Your task to perform on an android device: Go to Yahoo.com Image 0: 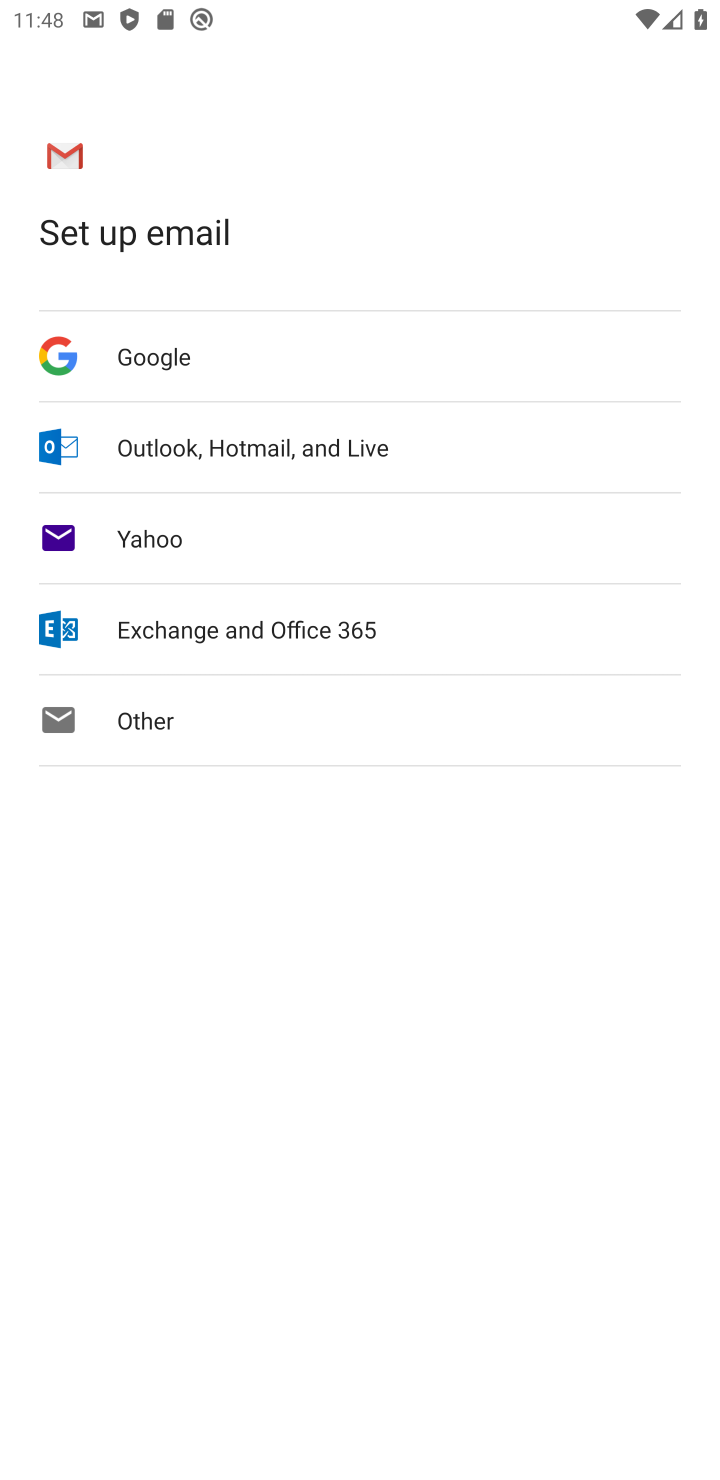
Step 0: press home button
Your task to perform on an android device: Go to Yahoo.com Image 1: 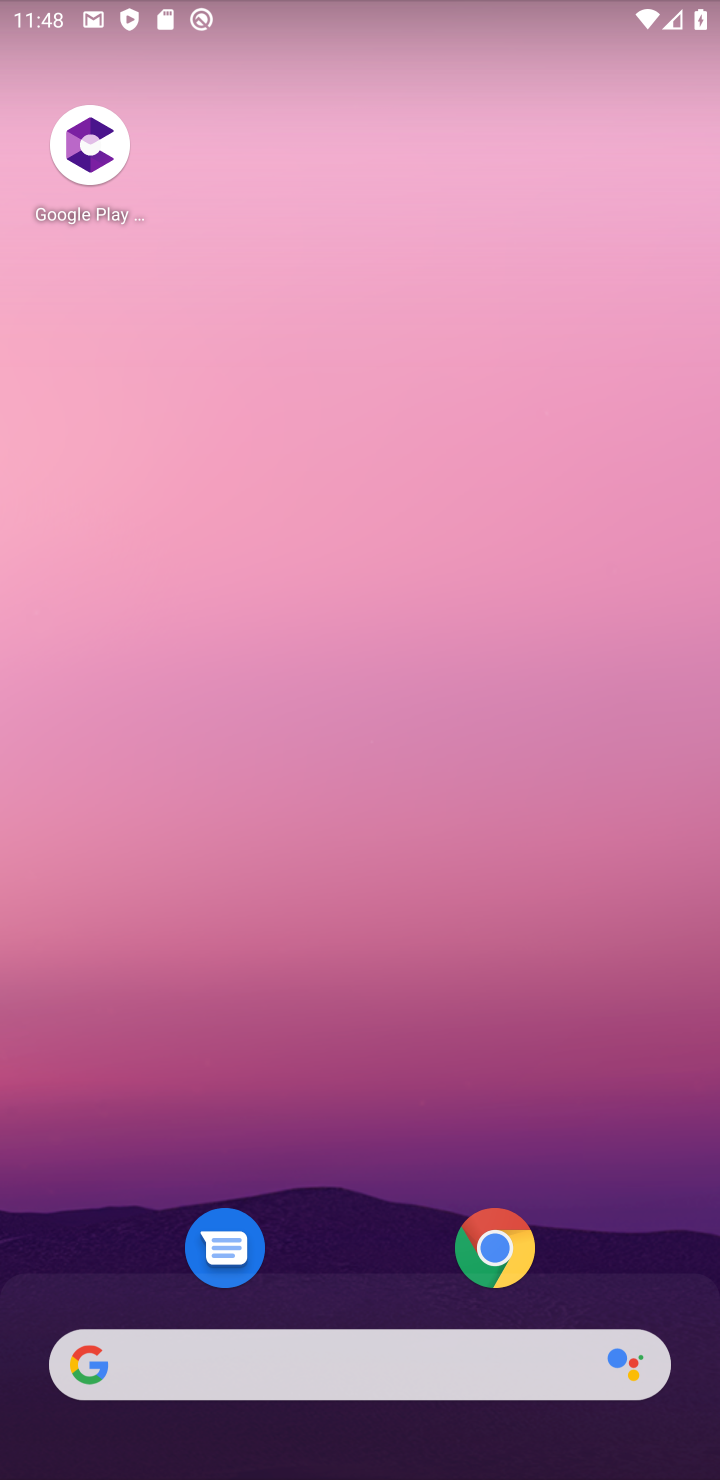
Step 1: press home button
Your task to perform on an android device: Go to Yahoo.com Image 2: 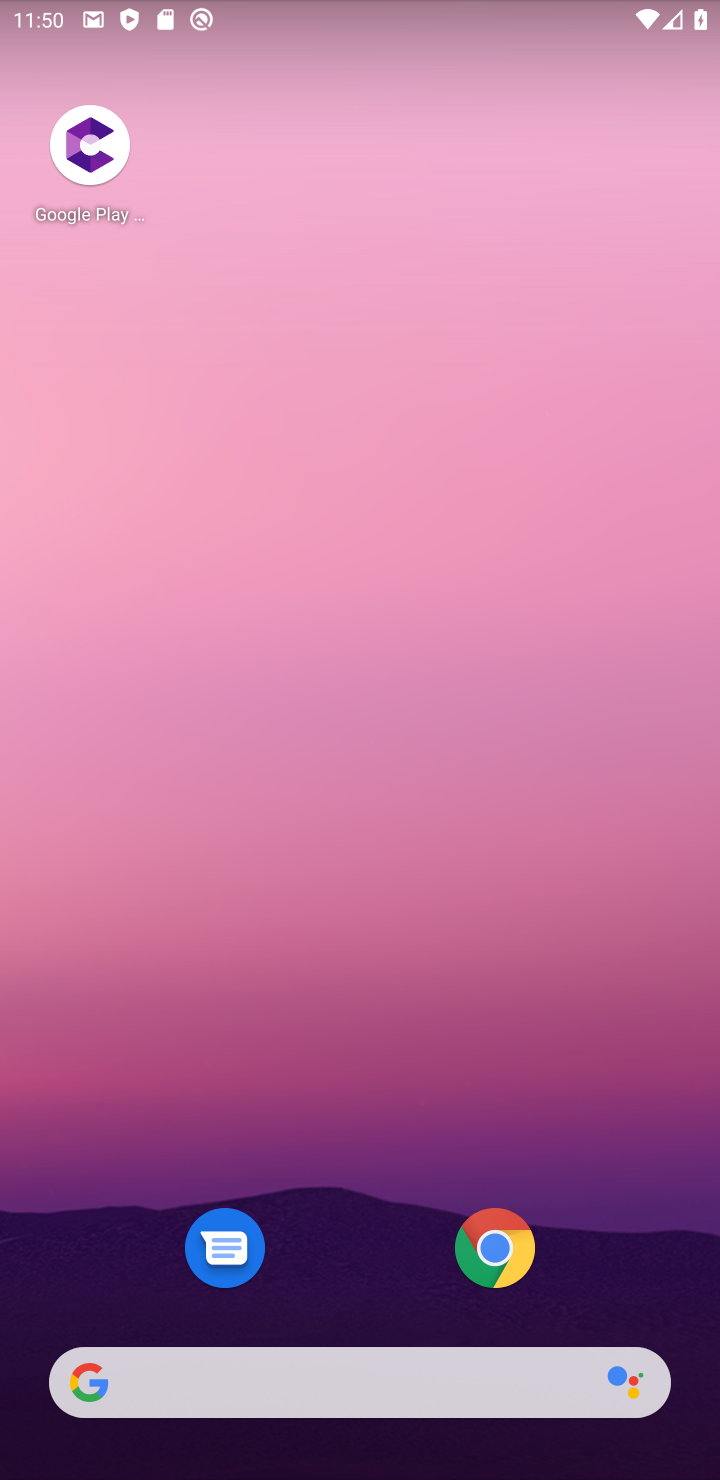
Step 2: click (529, 1262)
Your task to perform on an android device: Go to Yahoo.com Image 3: 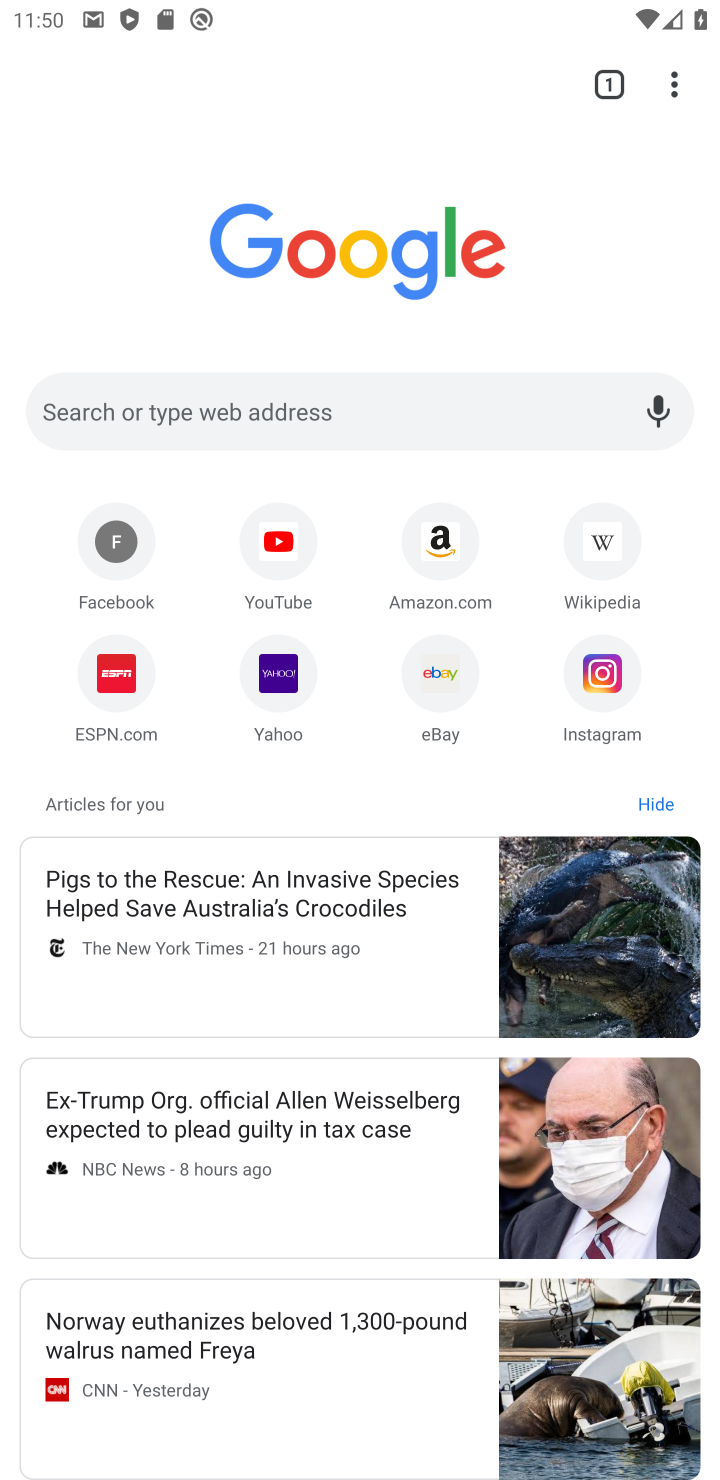
Step 3: click (525, 400)
Your task to perform on an android device: Go to Yahoo.com Image 4: 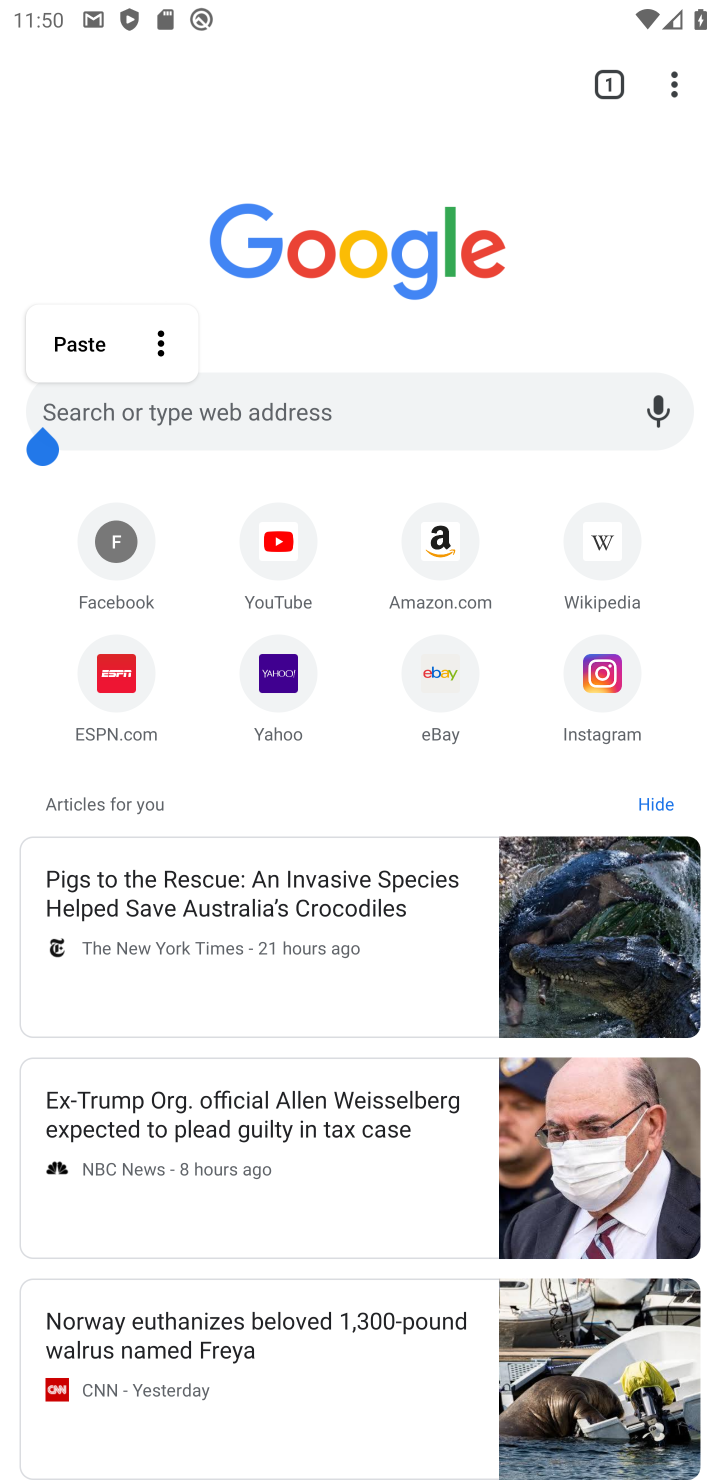
Step 4: type "yahoo.com"
Your task to perform on an android device: Go to Yahoo.com Image 5: 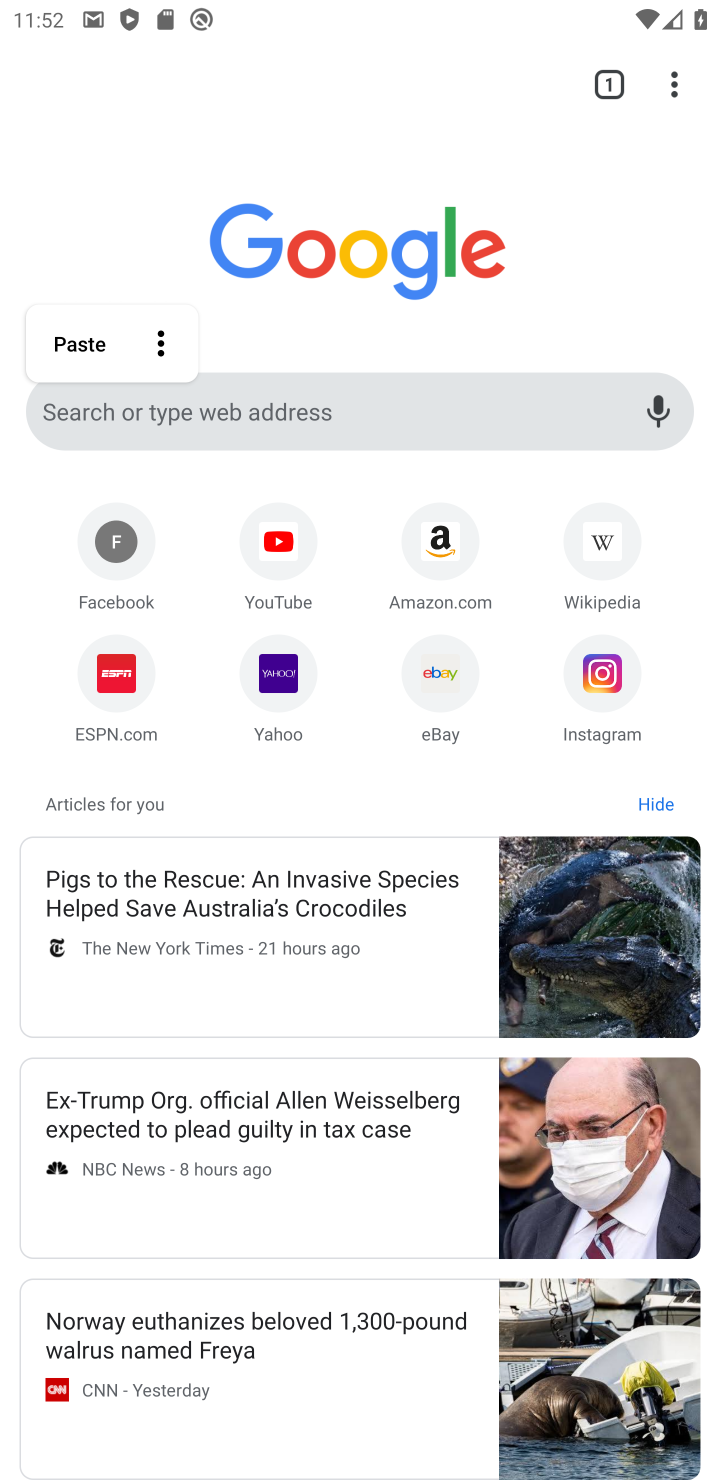
Step 5: click (477, 426)
Your task to perform on an android device: Go to Yahoo.com Image 6: 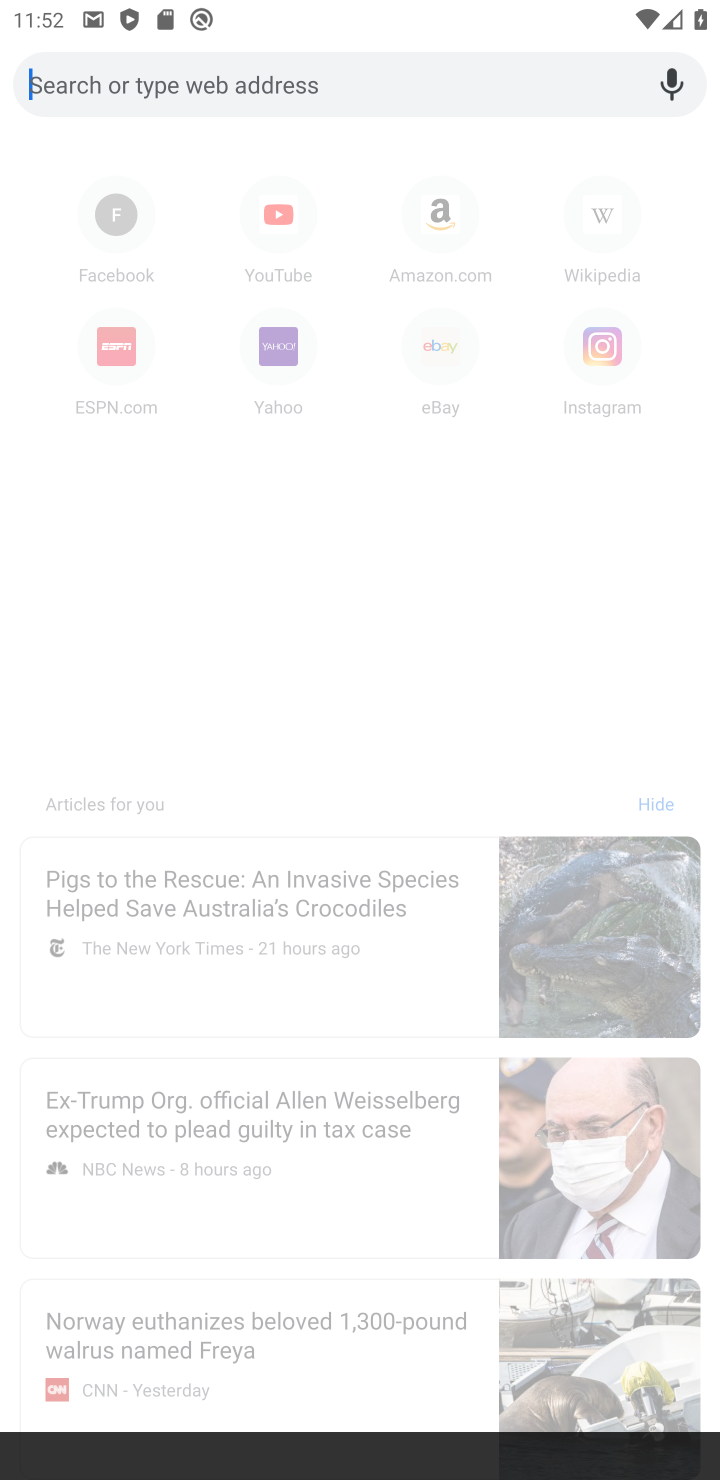
Step 6: type "yahoo.com"
Your task to perform on an android device: Go to Yahoo.com Image 7: 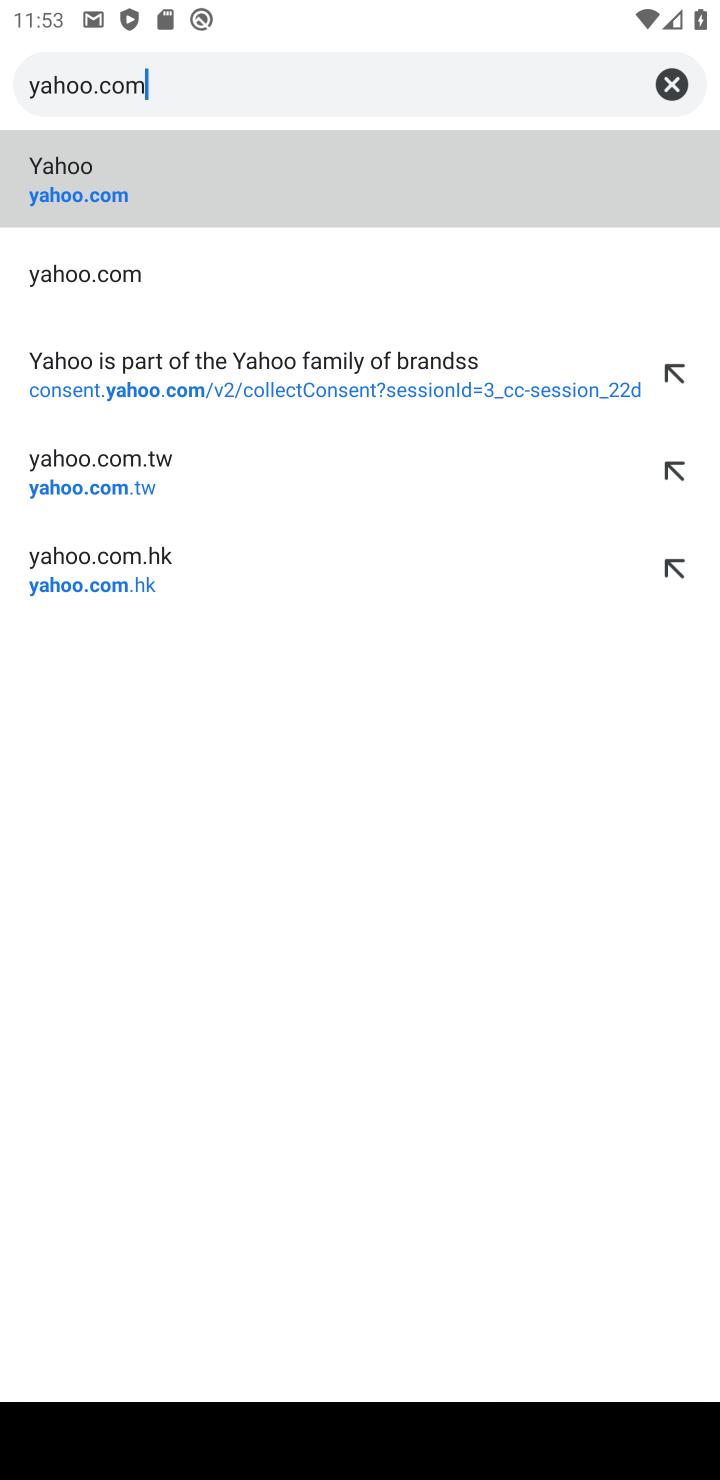
Step 7: task complete